Your task to perform on an android device: set the timer Image 0: 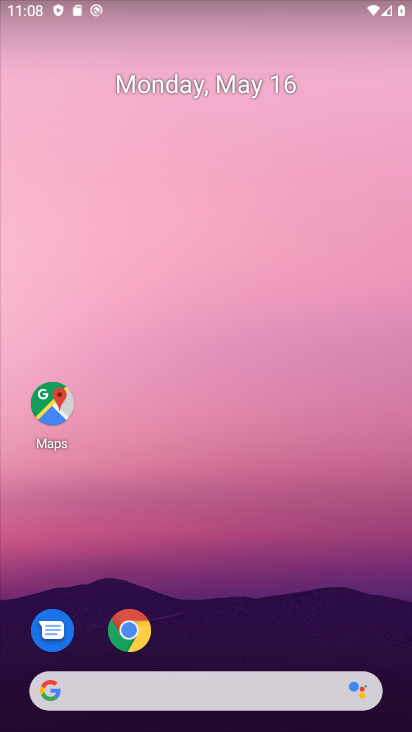
Step 0: drag from (237, 631) to (274, 88)
Your task to perform on an android device: set the timer Image 1: 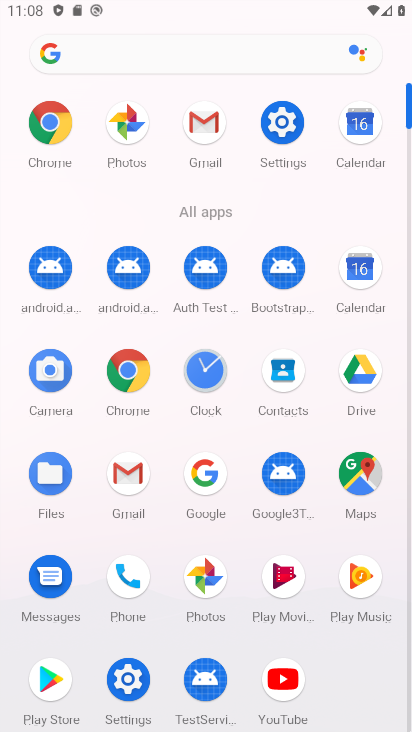
Step 1: click (205, 370)
Your task to perform on an android device: set the timer Image 2: 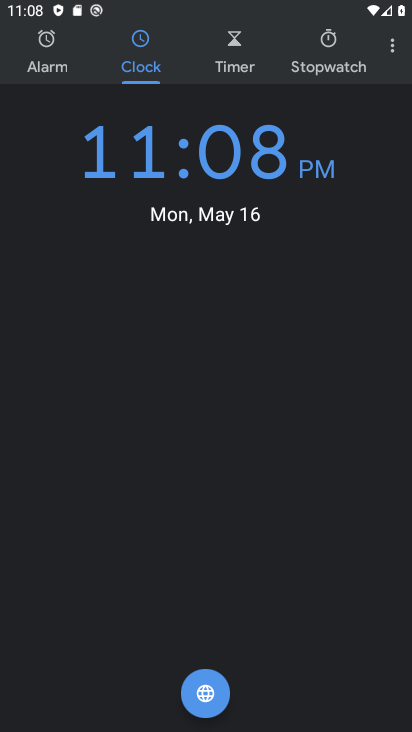
Step 2: click (228, 68)
Your task to perform on an android device: set the timer Image 3: 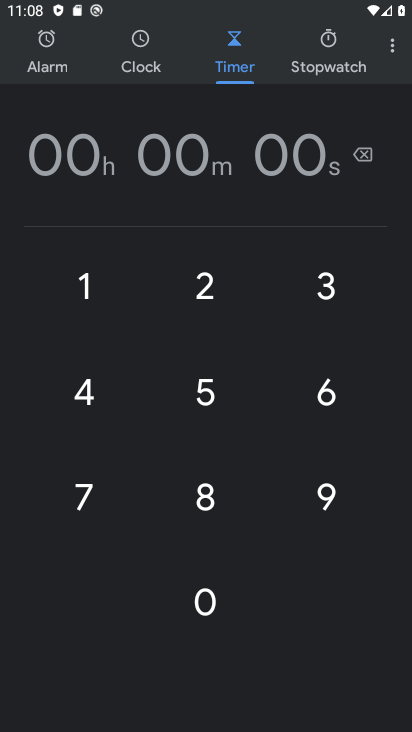
Step 3: type "100000"
Your task to perform on an android device: set the timer Image 4: 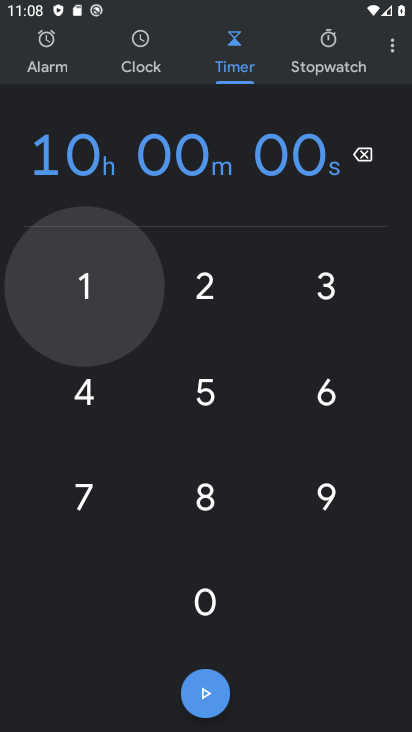
Step 4: click (219, 710)
Your task to perform on an android device: set the timer Image 5: 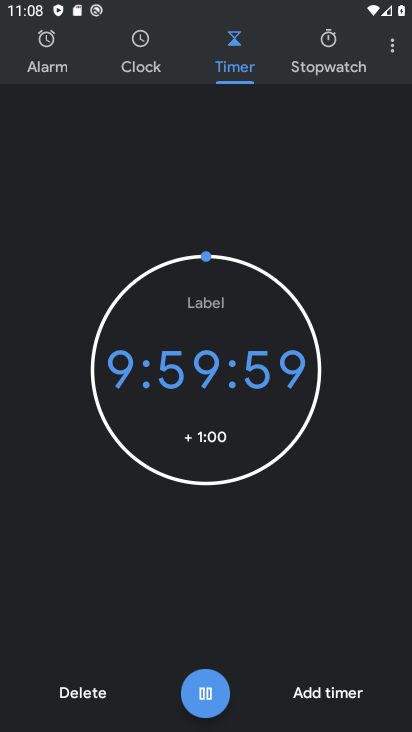
Step 5: task complete